Your task to perform on an android device: allow cookies in the chrome app Image 0: 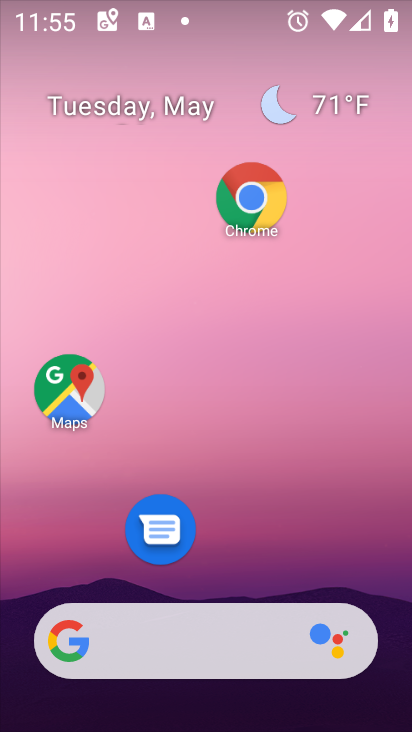
Step 0: drag from (179, 616) to (316, 20)
Your task to perform on an android device: allow cookies in the chrome app Image 1: 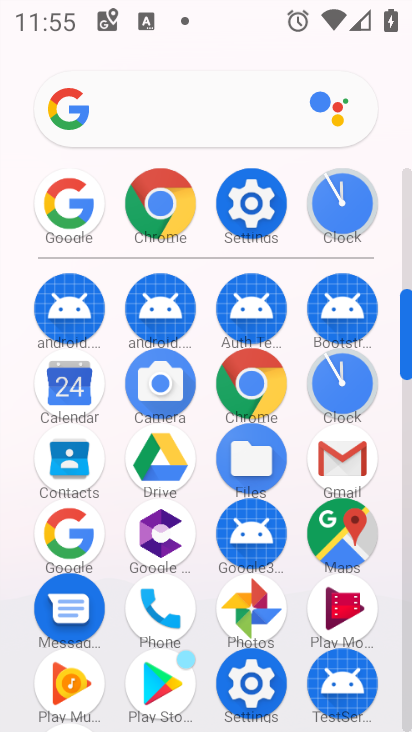
Step 1: click (167, 222)
Your task to perform on an android device: allow cookies in the chrome app Image 2: 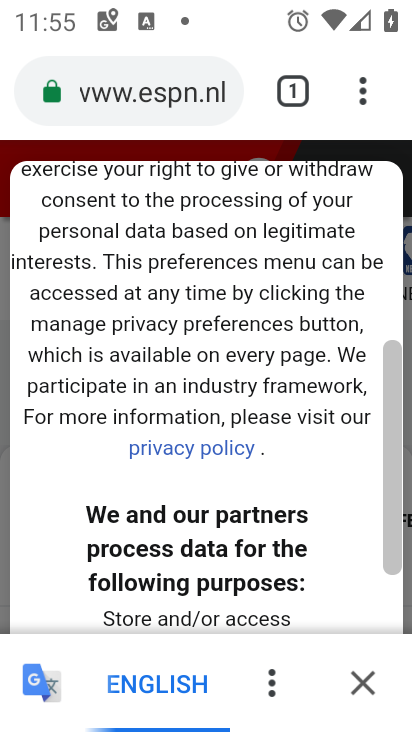
Step 2: click (353, 80)
Your task to perform on an android device: allow cookies in the chrome app Image 3: 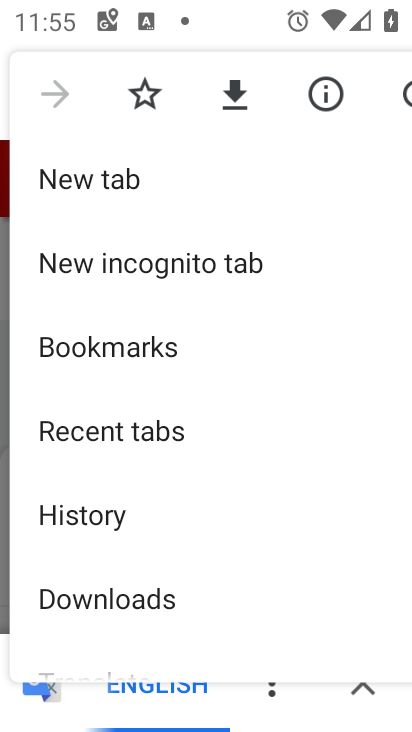
Step 3: drag from (213, 469) to (227, 268)
Your task to perform on an android device: allow cookies in the chrome app Image 4: 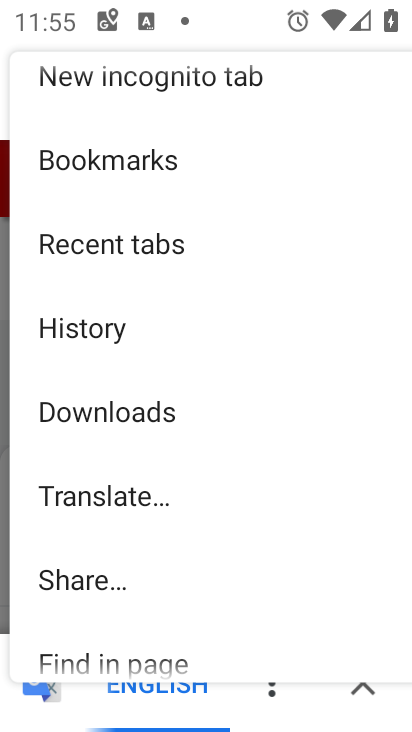
Step 4: drag from (130, 572) to (196, 220)
Your task to perform on an android device: allow cookies in the chrome app Image 5: 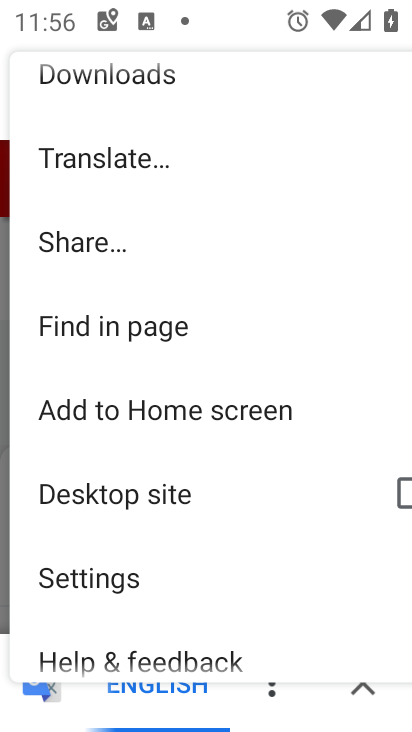
Step 5: click (172, 577)
Your task to perform on an android device: allow cookies in the chrome app Image 6: 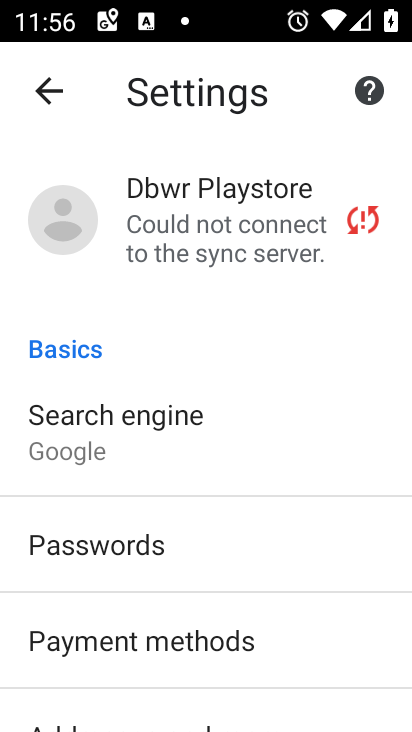
Step 6: drag from (185, 577) to (238, 224)
Your task to perform on an android device: allow cookies in the chrome app Image 7: 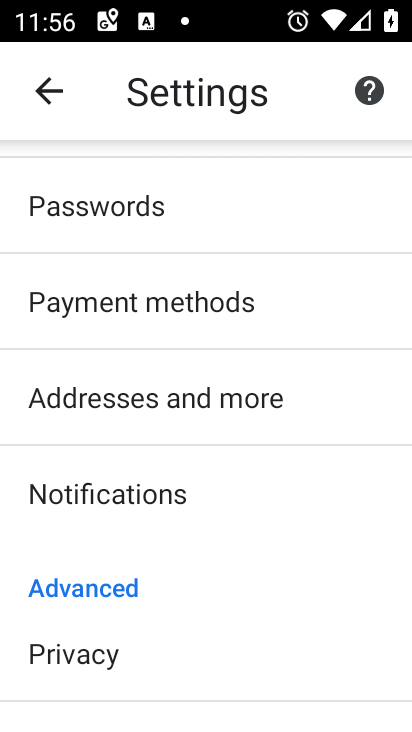
Step 7: drag from (140, 622) to (176, 136)
Your task to perform on an android device: allow cookies in the chrome app Image 8: 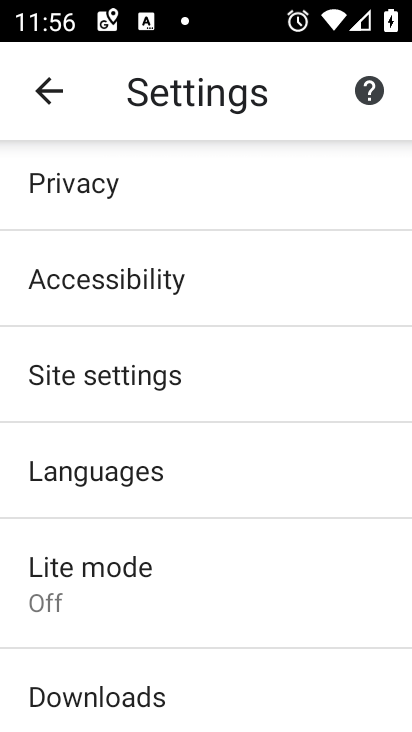
Step 8: drag from (165, 575) to (183, 448)
Your task to perform on an android device: allow cookies in the chrome app Image 9: 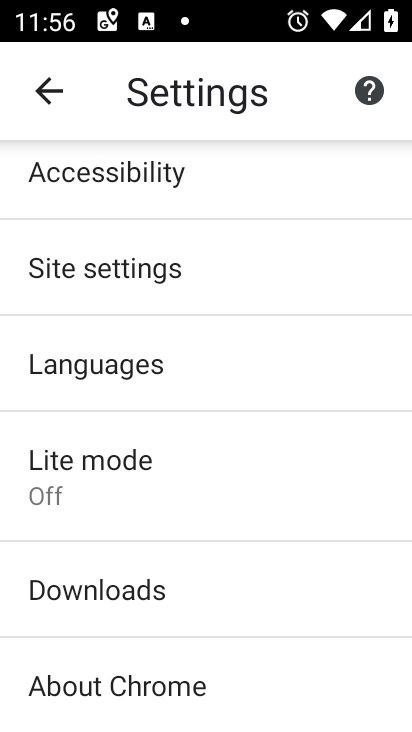
Step 9: drag from (141, 622) to (191, 180)
Your task to perform on an android device: allow cookies in the chrome app Image 10: 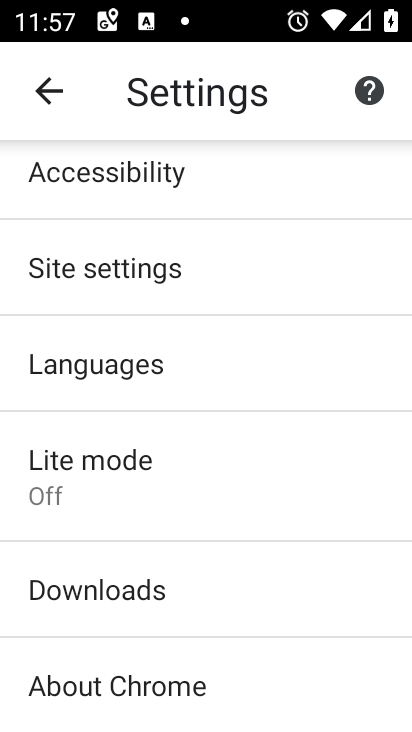
Step 10: drag from (139, 549) to (255, 152)
Your task to perform on an android device: allow cookies in the chrome app Image 11: 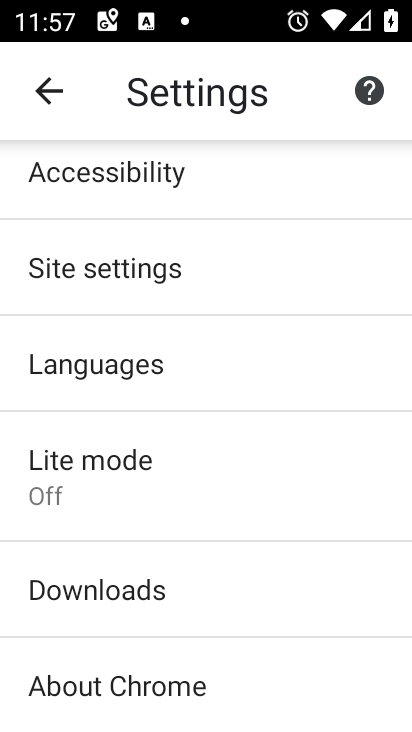
Step 11: drag from (165, 555) to (203, 370)
Your task to perform on an android device: allow cookies in the chrome app Image 12: 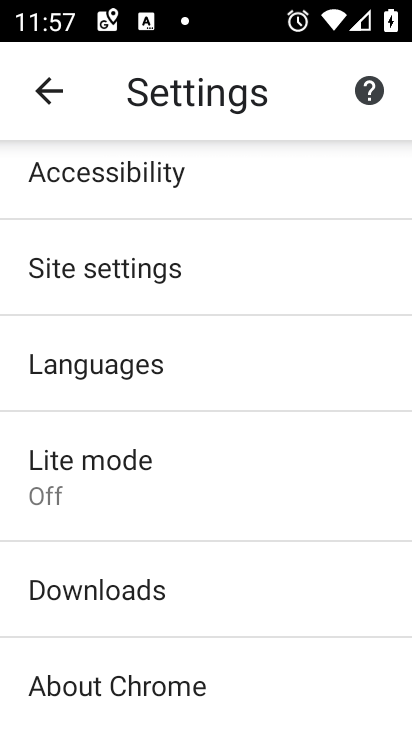
Step 12: drag from (198, 495) to (244, 317)
Your task to perform on an android device: allow cookies in the chrome app Image 13: 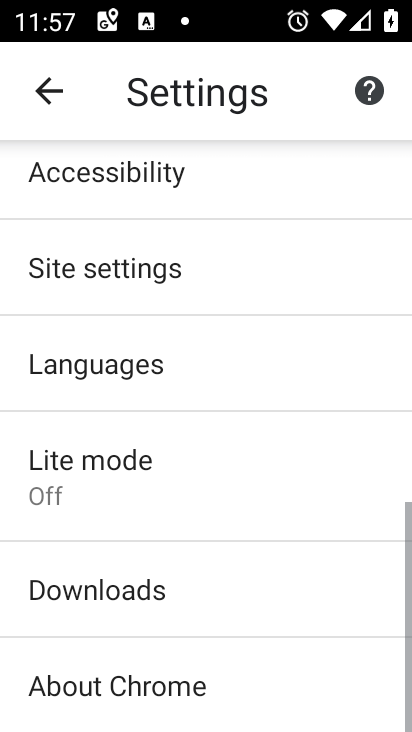
Step 13: drag from (168, 531) to (222, 355)
Your task to perform on an android device: allow cookies in the chrome app Image 14: 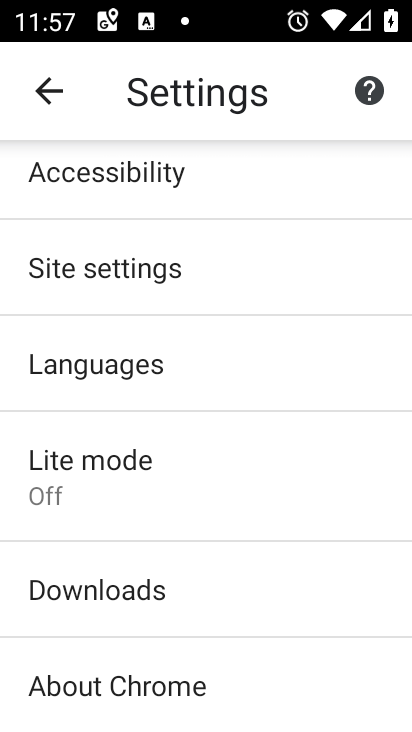
Step 14: drag from (151, 498) to (205, 263)
Your task to perform on an android device: allow cookies in the chrome app Image 15: 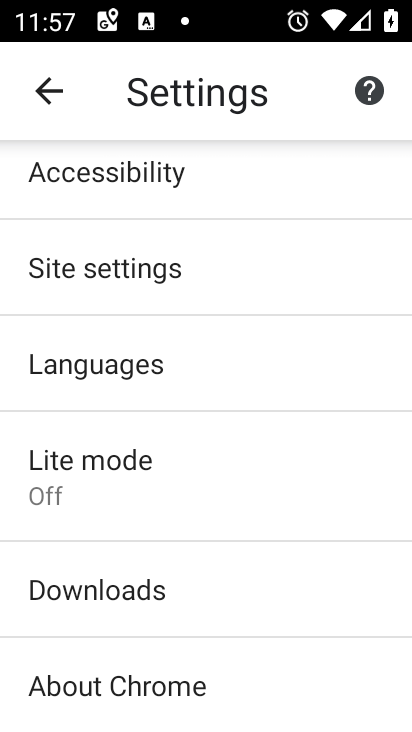
Step 15: drag from (173, 420) to (204, 315)
Your task to perform on an android device: allow cookies in the chrome app Image 16: 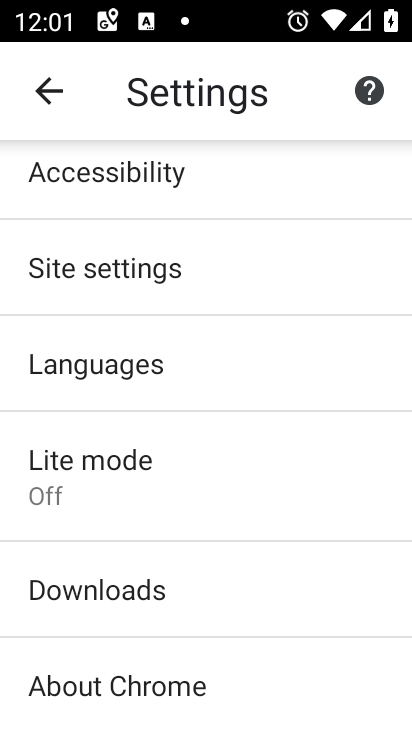
Step 16: drag from (100, 352) to (125, 547)
Your task to perform on an android device: allow cookies in the chrome app Image 17: 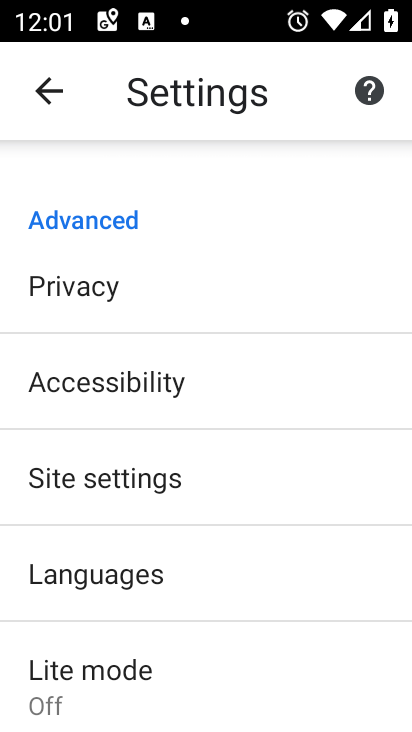
Step 17: click (157, 478)
Your task to perform on an android device: allow cookies in the chrome app Image 18: 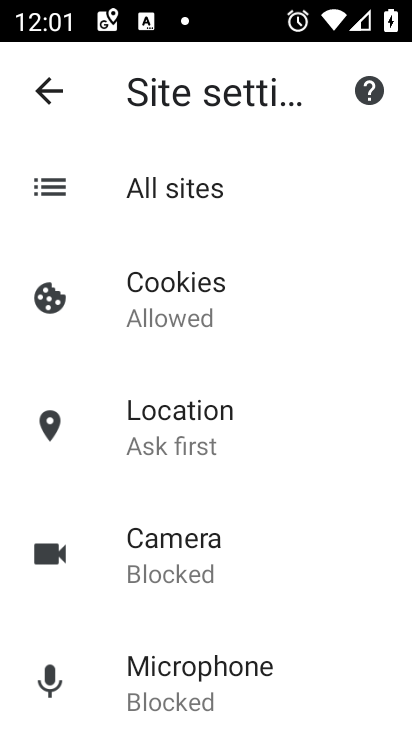
Step 18: click (197, 310)
Your task to perform on an android device: allow cookies in the chrome app Image 19: 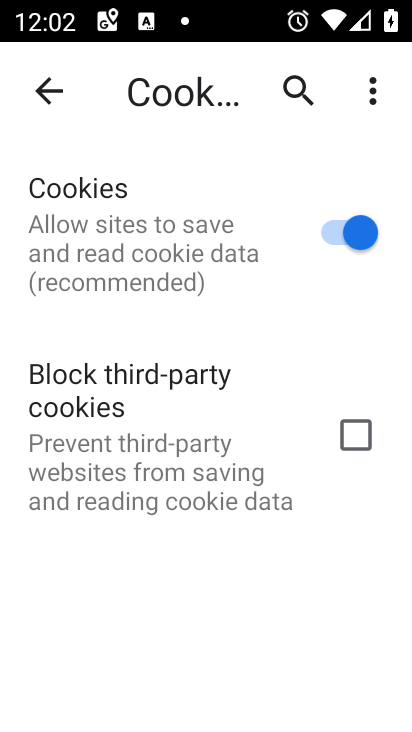
Step 19: task complete